Your task to perform on an android device: Open Maps and search for coffee Image 0: 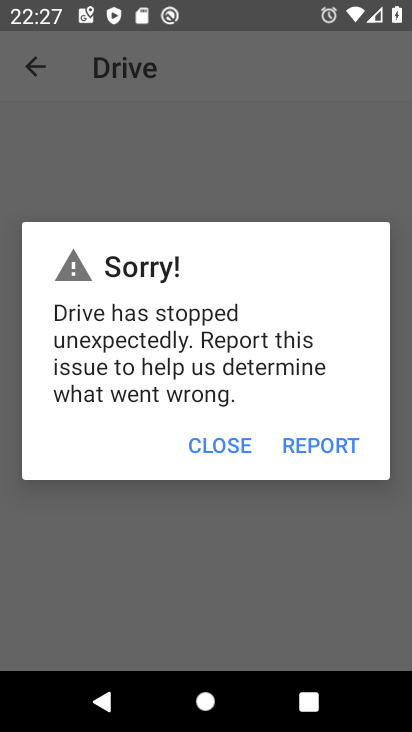
Step 0: press home button
Your task to perform on an android device: Open Maps and search for coffee Image 1: 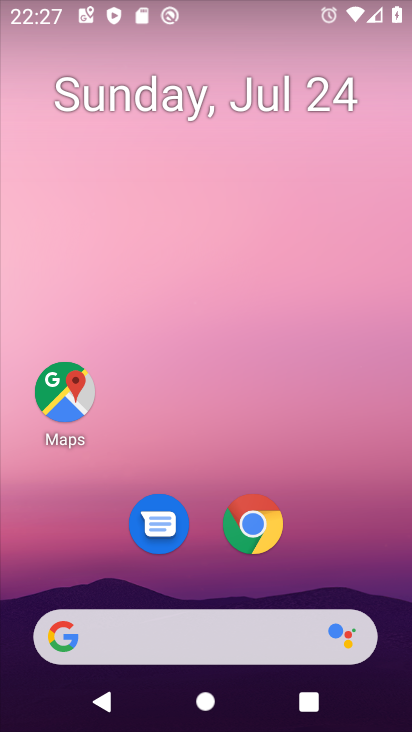
Step 1: click (65, 372)
Your task to perform on an android device: Open Maps and search for coffee Image 2: 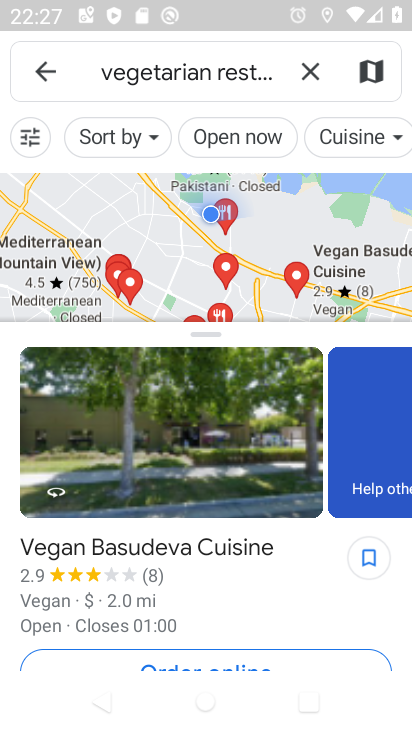
Step 2: click (312, 70)
Your task to perform on an android device: Open Maps and search for coffee Image 3: 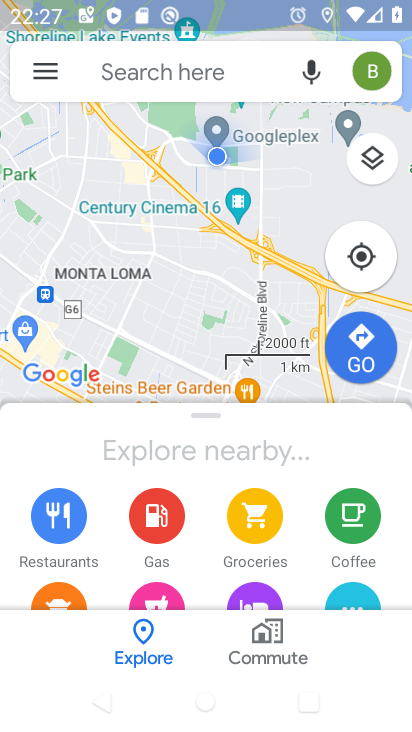
Step 3: click (182, 72)
Your task to perform on an android device: Open Maps and search for coffee Image 4: 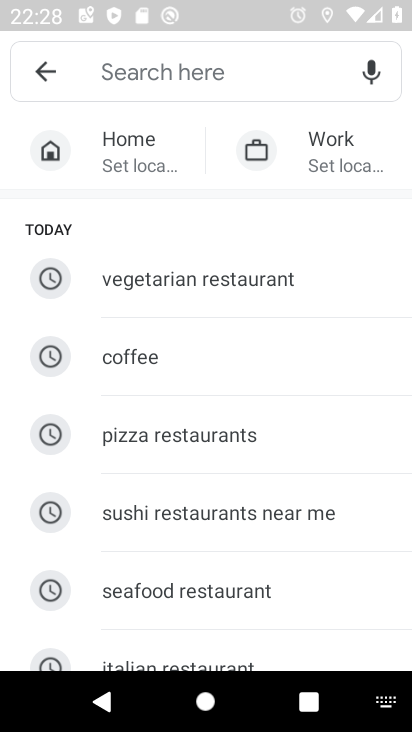
Step 4: click (150, 365)
Your task to perform on an android device: Open Maps and search for coffee Image 5: 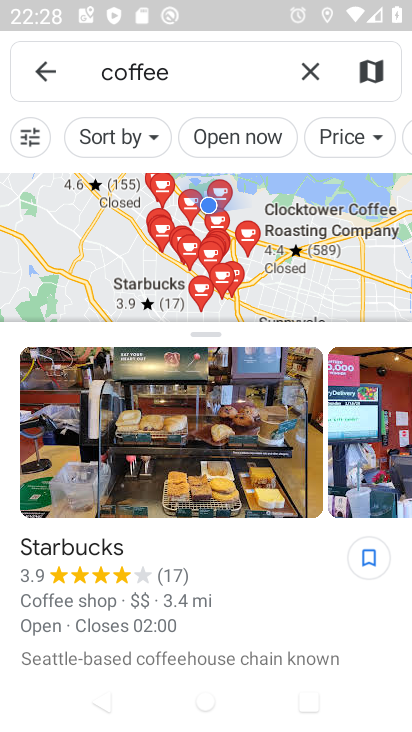
Step 5: task complete